Your task to perform on an android device: Go to Google Image 0: 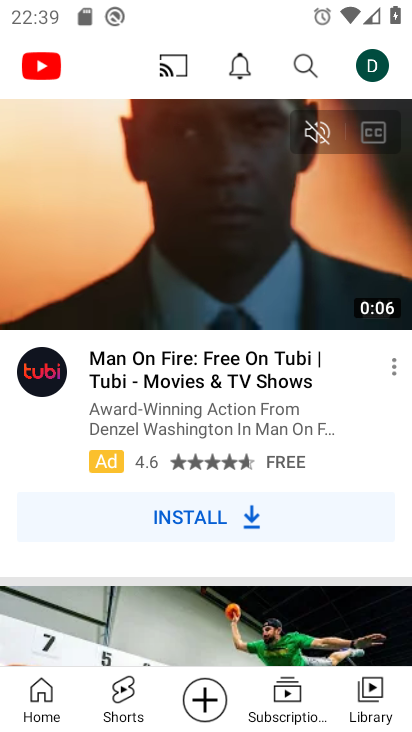
Step 0: press home button
Your task to perform on an android device: Go to Google Image 1: 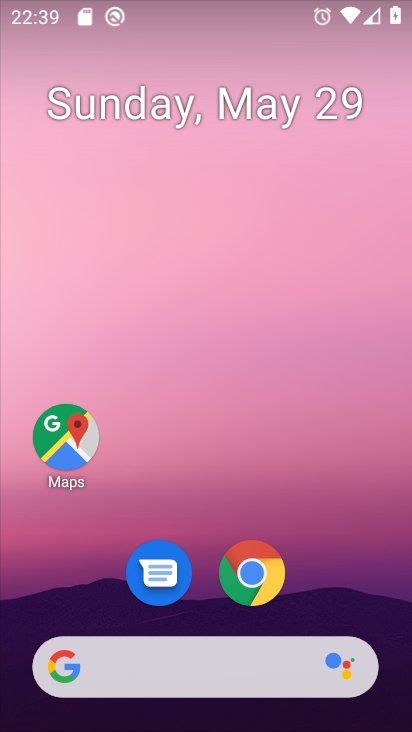
Step 1: click (141, 658)
Your task to perform on an android device: Go to Google Image 2: 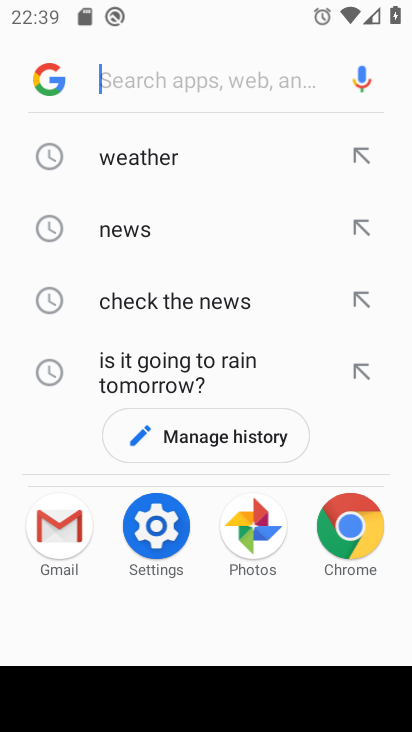
Step 2: click (39, 65)
Your task to perform on an android device: Go to Google Image 3: 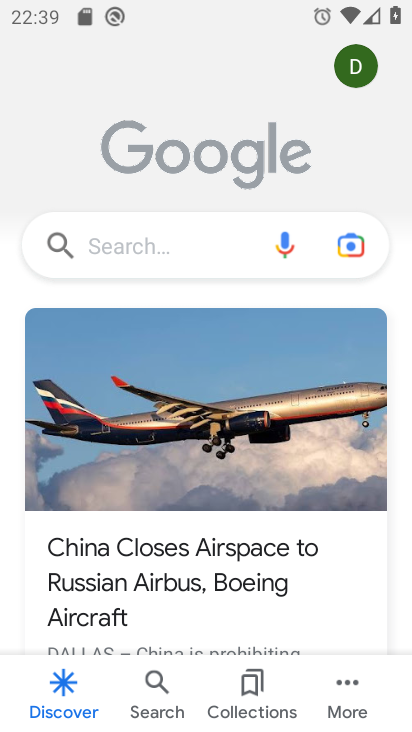
Step 3: task complete